Your task to perform on an android device: Open settings Image 0: 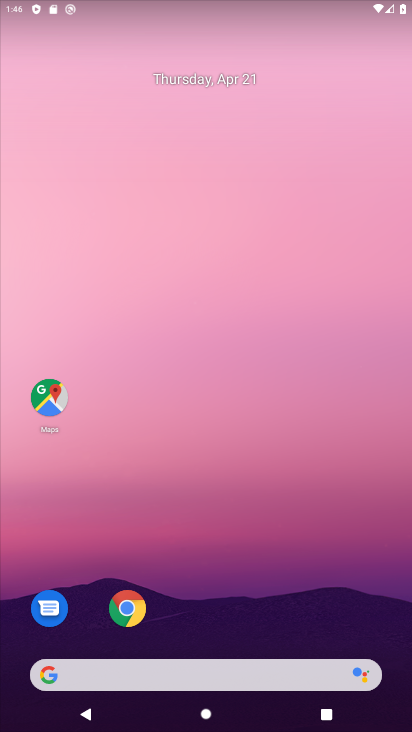
Step 0: drag from (208, 575) to (241, 108)
Your task to perform on an android device: Open settings Image 1: 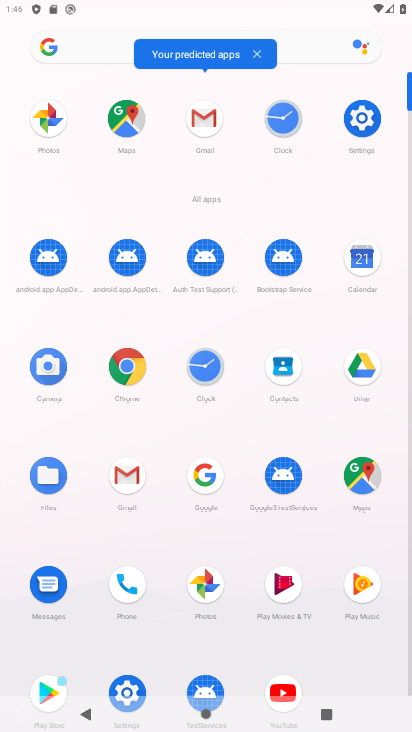
Step 1: click (364, 116)
Your task to perform on an android device: Open settings Image 2: 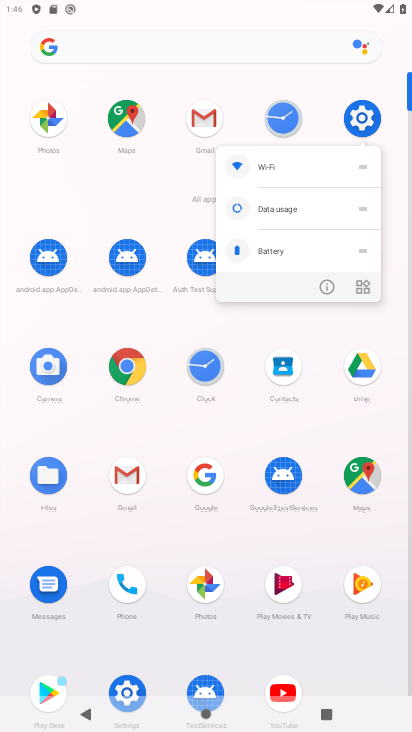
Step 2: click (373, 118)
Your task to perform on an android device: Open settings Image 3: 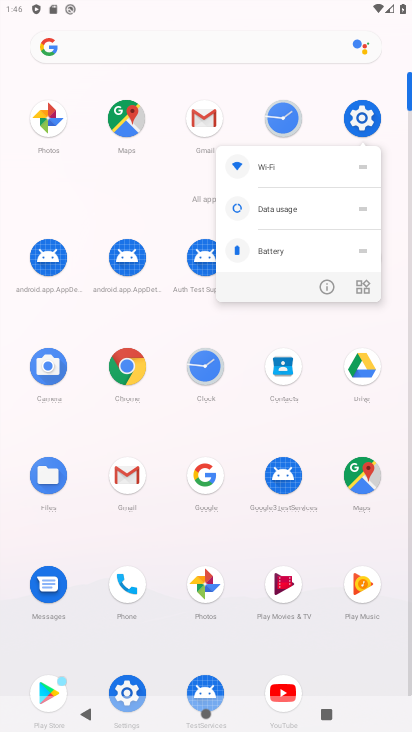
Step 3: click (373, 118)
Your task to perform on an android device: Open settings Image 4: 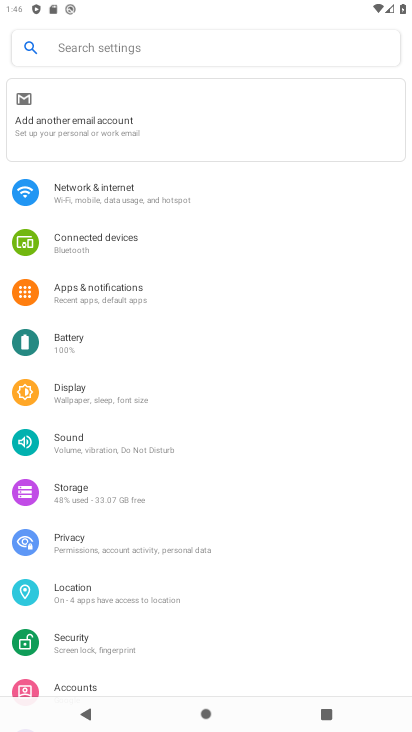
Step 4: task complete